Your task to perform on an android device: turn off data saver in the chrome app Image 0: 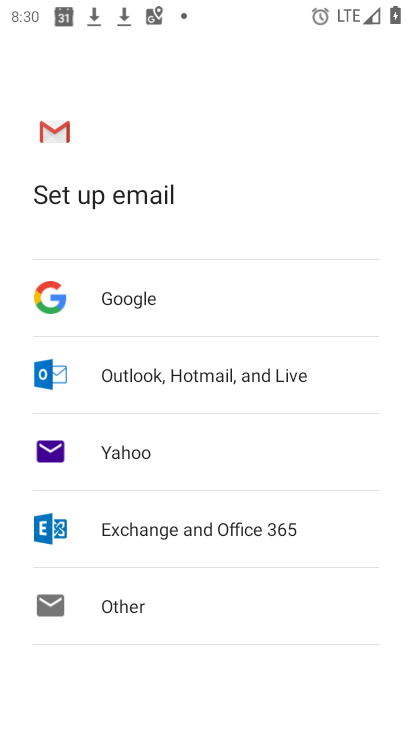
Step 0: press home button
Your task to perform on an android device: turn off data saver in the chrome app Image 1: 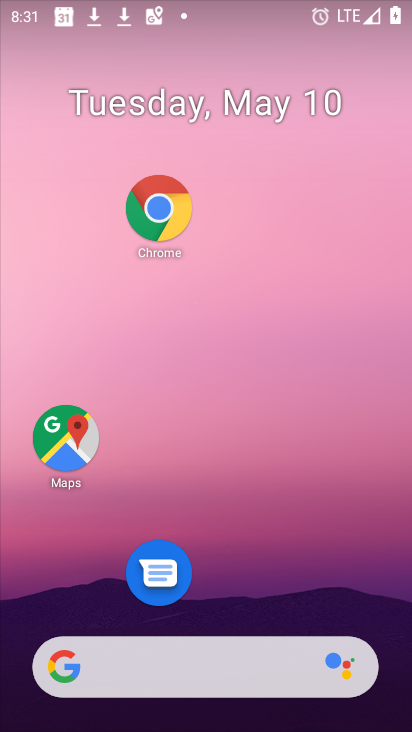
Step 1: drag from (273, 714) to (378, 305)
Your task to perform on an android device: turn off data saver in the chrome app Image 2: 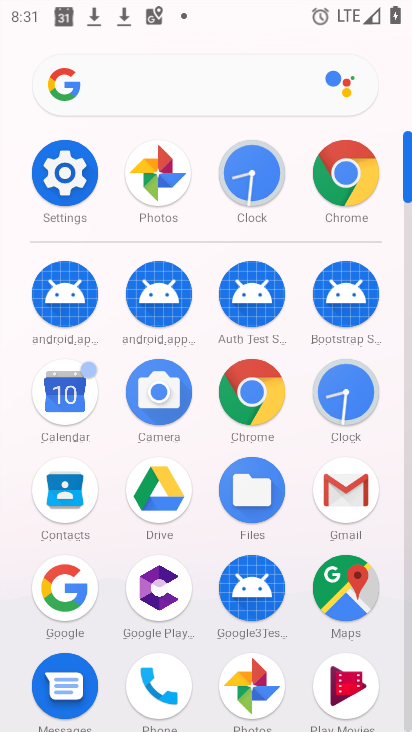
Step 2: click (350, 182)
Your task to perform on an android device: turn off data saver in the chrome app Image 3: 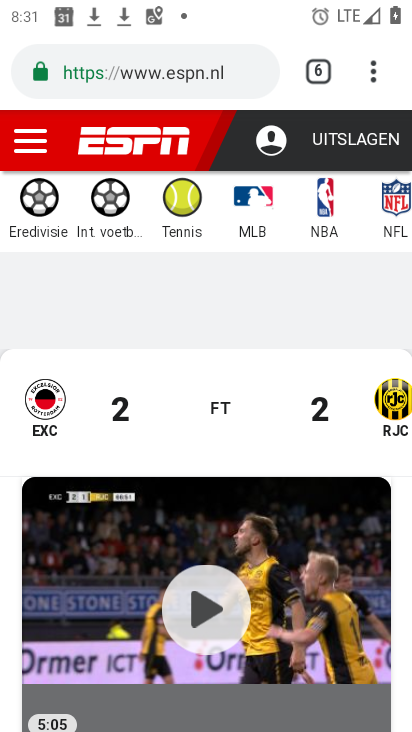
Step 3: click (373, 66)
Your task to perform on an android device: turn off data saver in the chrome app Image 4: 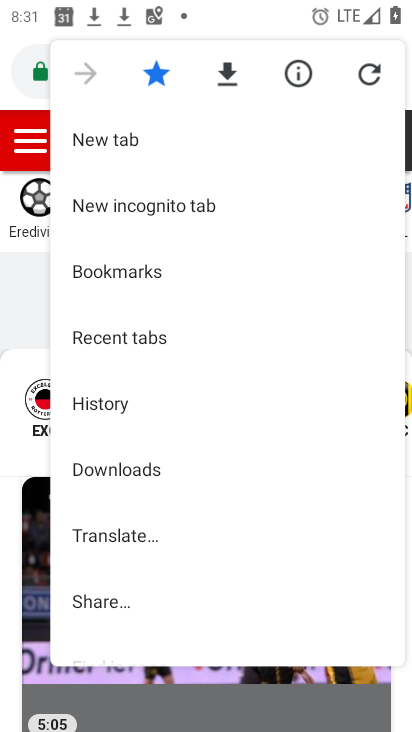
Step 4: drag from (233, 544) to (302, 170)
Your task to perform on an android device: turn off data saver in the chrome app Image 5: 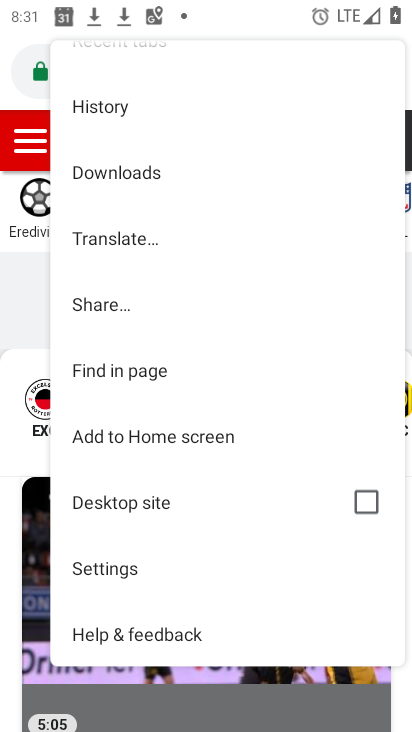
Step 5: click (160, 567)
Your task to perform on an android device: turn off data saver in the chrome app Image 6: 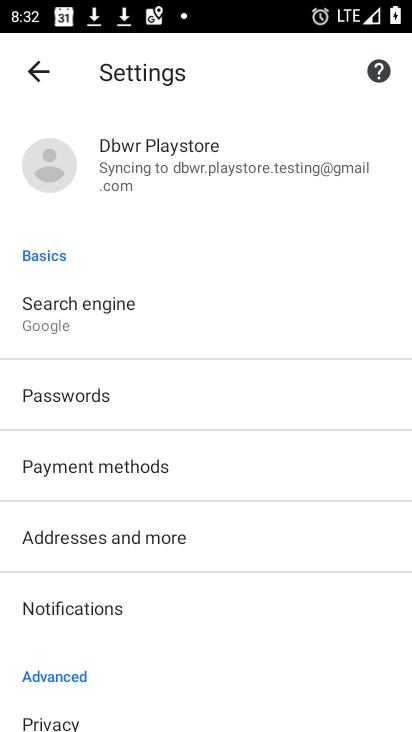
Step 6: drag from (112, 592) to (249, 248)
Your task to perform on an android device: turn off data saver in the chrome app Image 7: 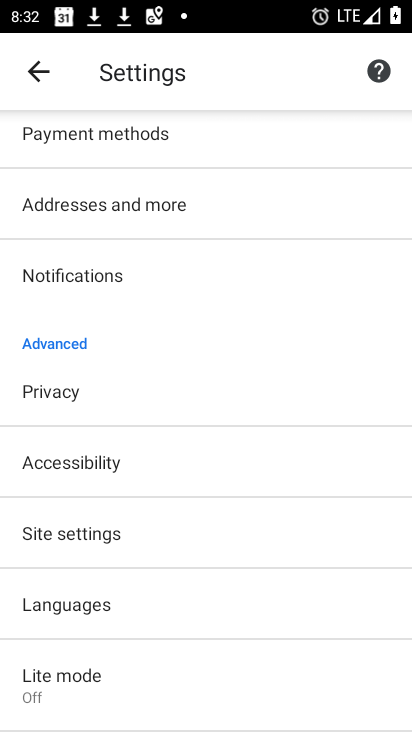
Step 7: click (59, 676)
Your task to perform on an android device: turn off data saver in the chrome app Image 8: 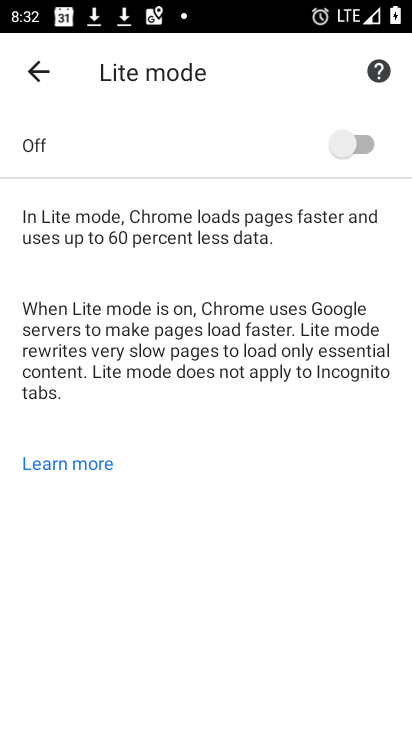
Step 8: click (356, 151)
Your task to perform on an android device: turn off data saver in the chrome app Image 9: 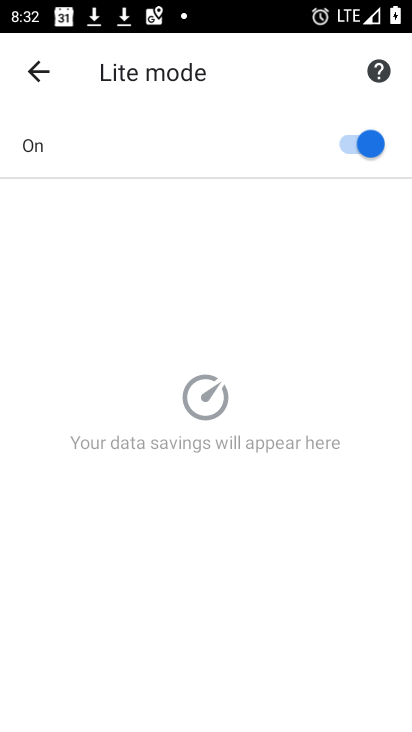
Step 9: click (358, 150)
Your task to perform on an android device: turn off data saver in the chrome app Image 10: 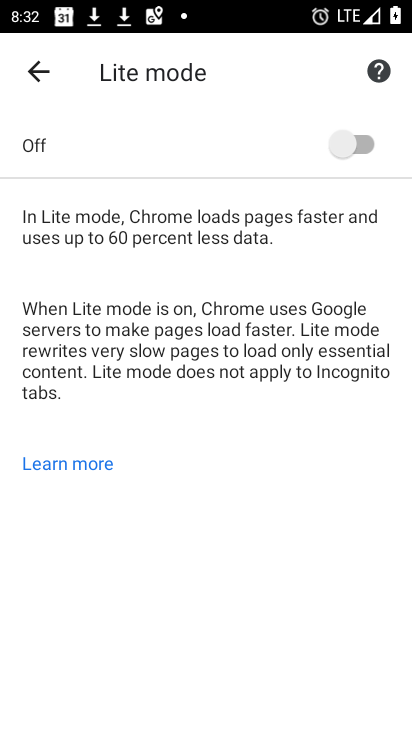
Step 10: task complete